Your task to perform on an android device: Do I have any events today? Image 0: 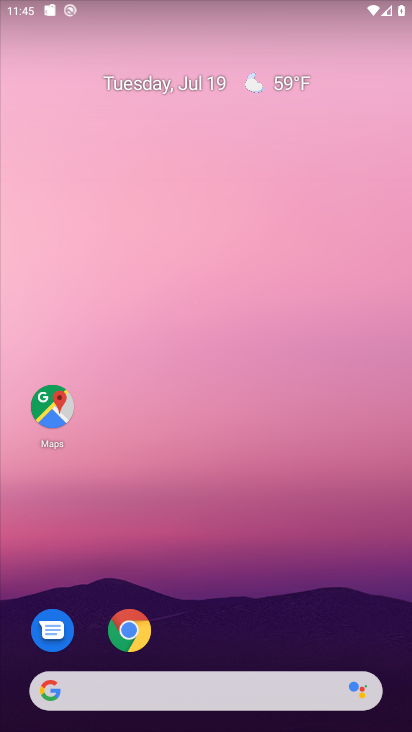
Step 0: drag from (371, 625) to (328, 67)
Your task to perform on an android device: Do I have any events today? Image 1: 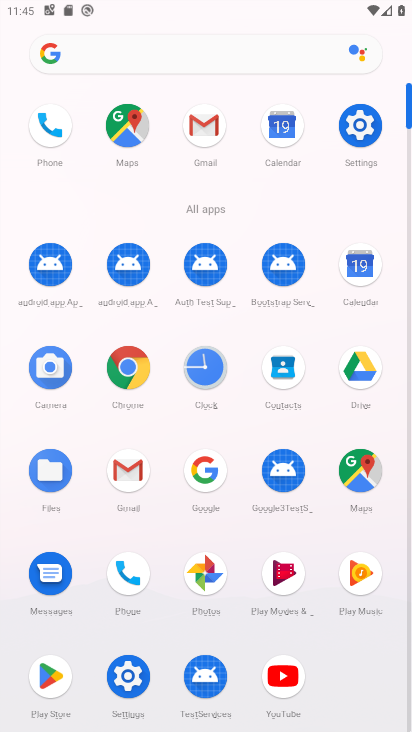
Step 1: click (355, 267)
Your task to perform on an android device: Do I have any events today? Image 2: 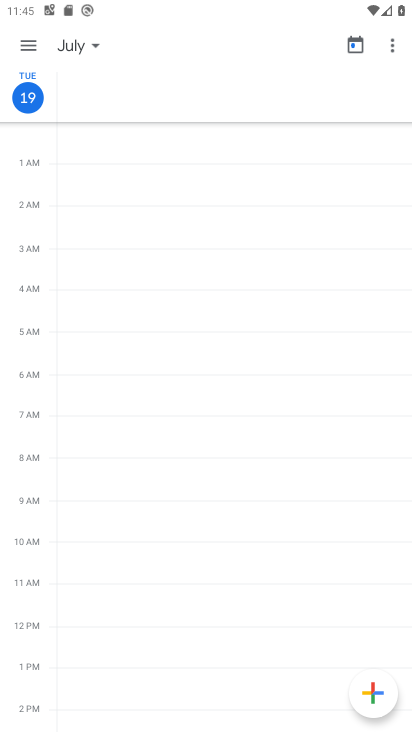
Step 2: task complete